Your task to perform on an android device: turn on location history Image 0: 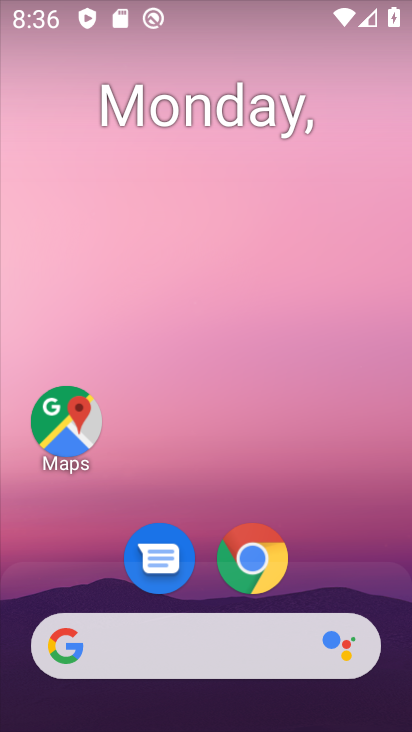
Step 0: click (65, 432)
Your task to perform on an android device: turn on location history Image 1: 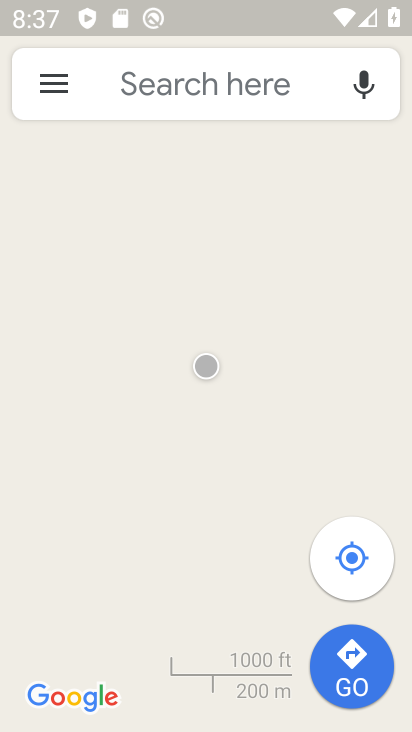
Step 1: click (40, 82)
Your task to perform on an android device: turn on location history Image 2: 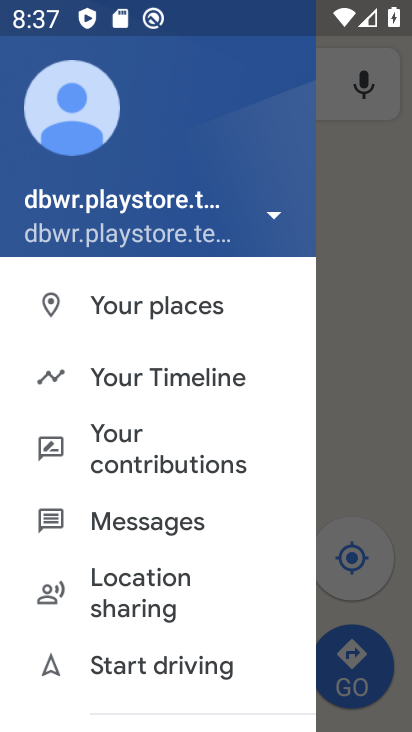
Step 2: click (196, 365)
Your task to perform on an android device: turn on location history Image 3: 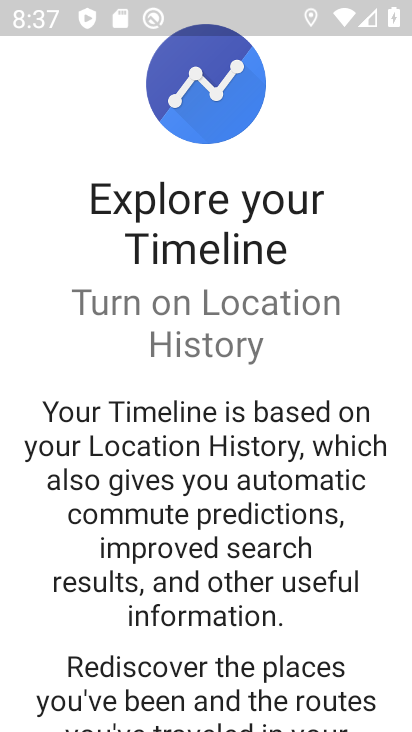
Step 3: drag from (215, 542) to (211, 202)
Your task to perform on an android device: turn on location history Image 4: 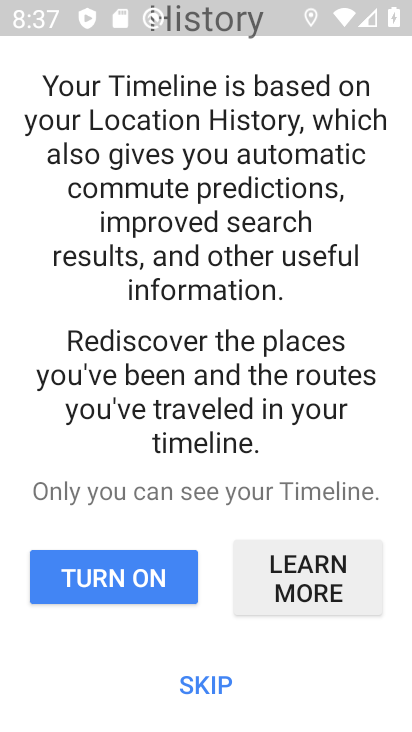
Step 4: click (107, 583)
Your task to perform on an android device: turn on location history Image 5: 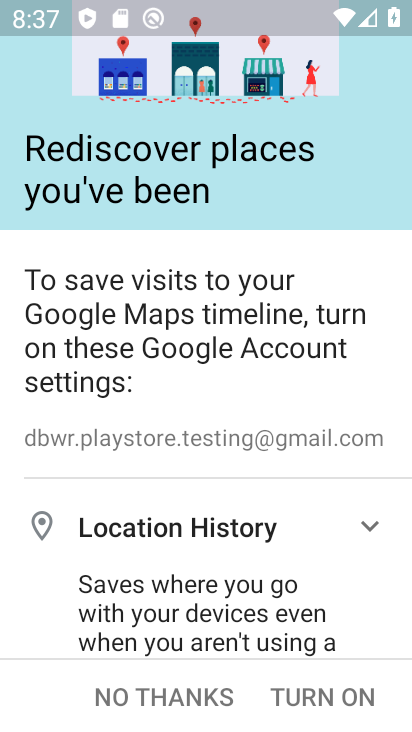
Step 5: click (194, 695)
Your task to perform on an android device: turn on location history Image 6: 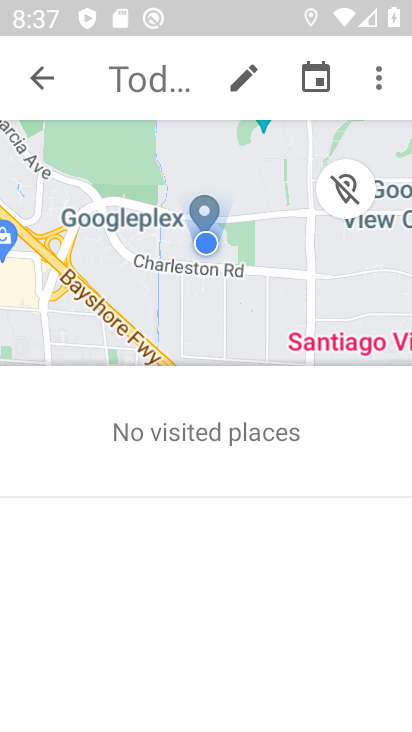
Step 6: click (378, 85)
Your task to perform on an android device: turn on location history Image 7: 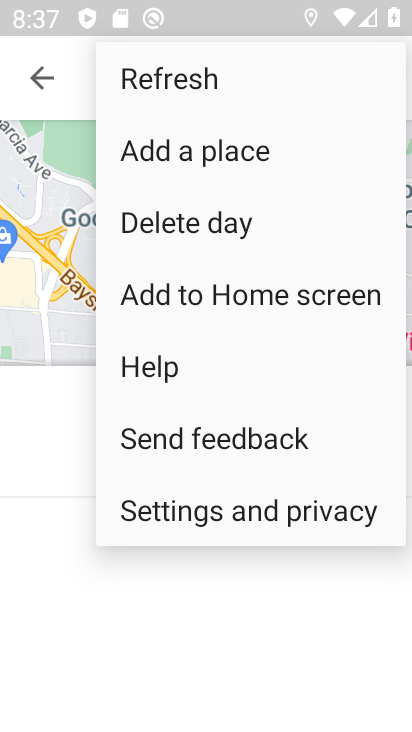
Step 7: click (218, 506)
Your task to perform on an android device: turn on location history Image 8: 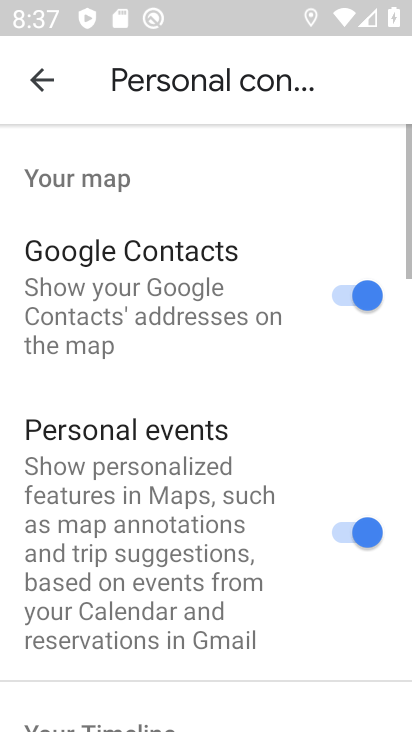
Step 8: drag from (204, 547) to (207, 96)
Your task to perform on an android device: turn on location history Image 9: 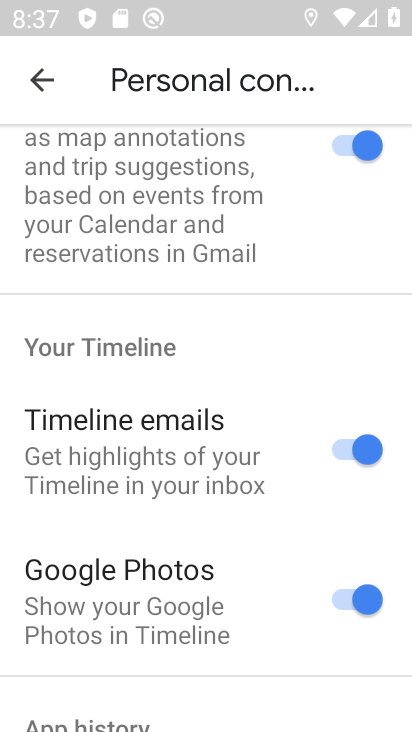
Step 9: drag from (166, 563) to (181, 195)
Your task to perform on an android device: turn on location history Image 10: 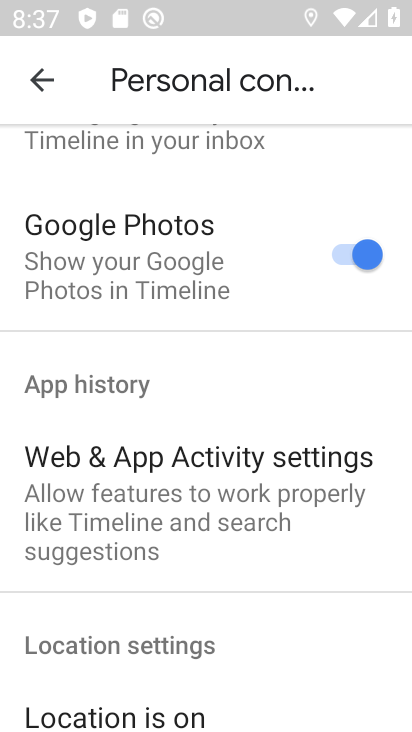
Step 10: drag from (108, 618) to (91, 176)
Your task to perform on an android device: turn on location history Image 11: 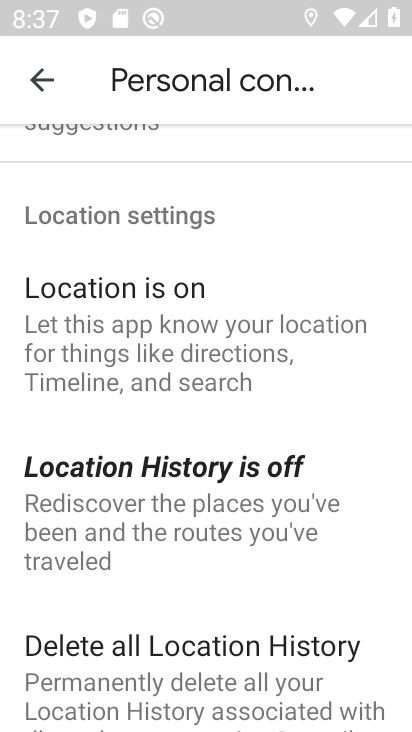
Step 11: click (42, 470)
Your task to perform on an android device: turn on location history Image 12: 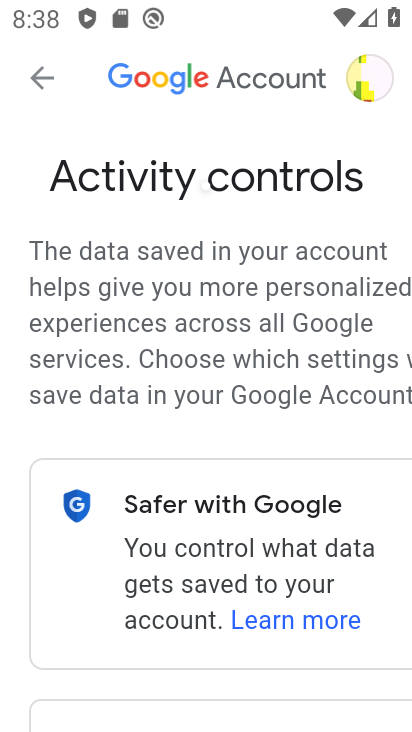
Step 12: drag from (86, 565) to (115, 116)
Your task to perform on an android device: turn on location history Image 13: 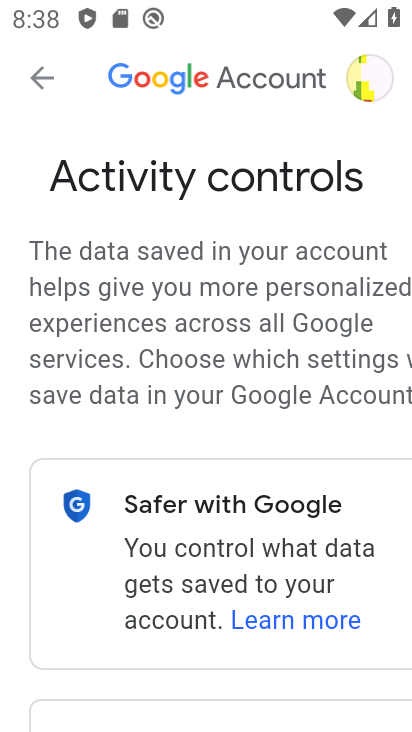
Step 13: drag from (198, 608) to (216, 259)
Your task to perform on an android device: turn on location history Image 14: 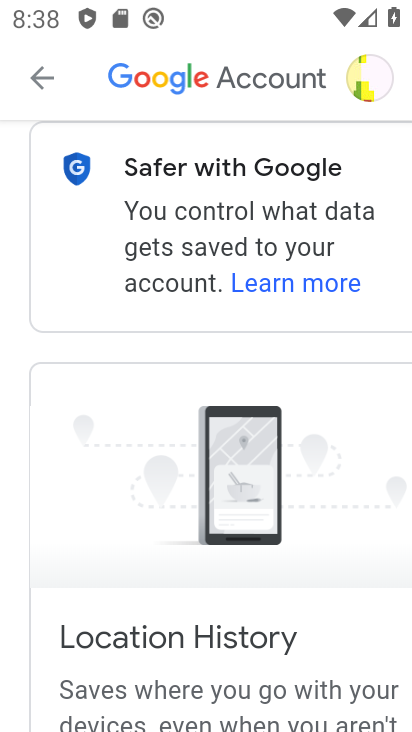
Step 14: drag from (169, 542) to (151, 236)
Your task to perform on an android device: turn on location history Image 15: 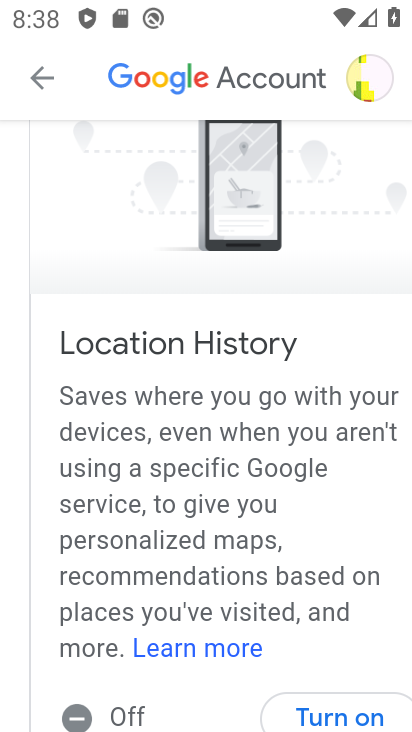
Step 15: drag from (120, 596) to (131, 251)
Your task to perform on an android device: turn on location history Image 16: 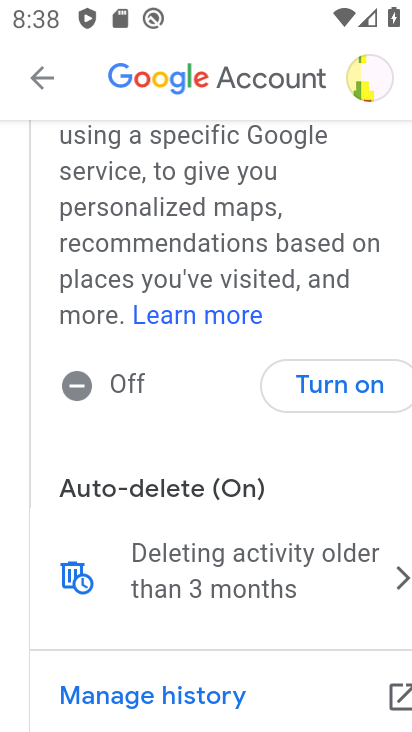
Step 16: click (298, 395)
Your task to perform on an android device: turn on location history Image 17: 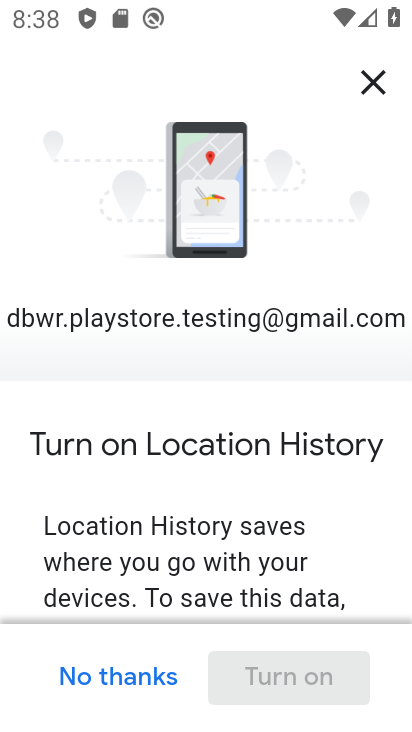
Step 17: drag from (250, 524) to (250, 218)
Your task to perform on an android device: turn on location history Image 18: 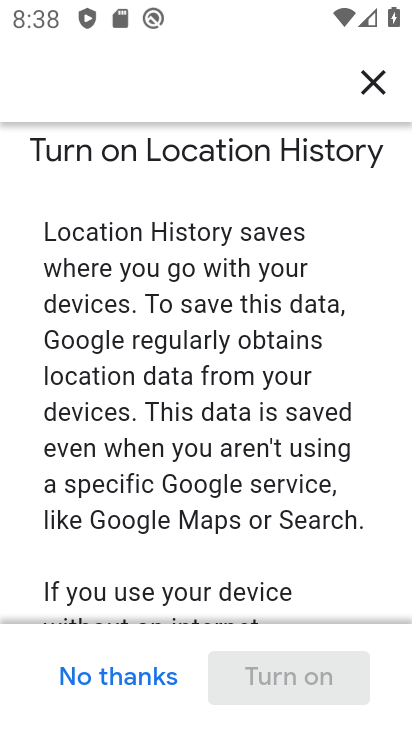
Step 18: drag from (176, 569) to (186, 259)
Your task to perform on an android device: turn on location history Image 19: 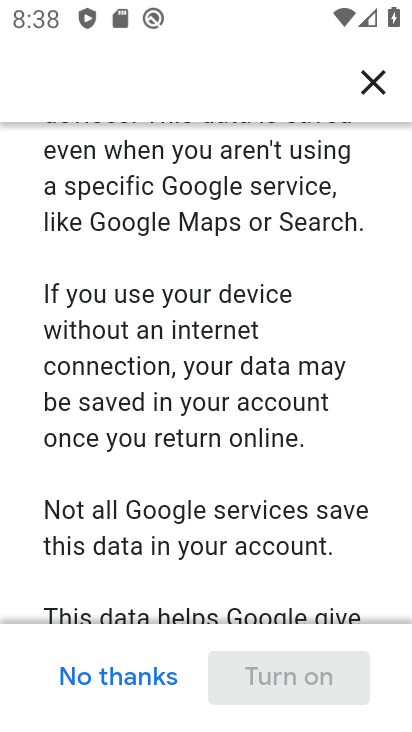
Step 19: drag from (181, 531) to (179, 235)
Your task to perform on an android device: turn on location history Image 20: 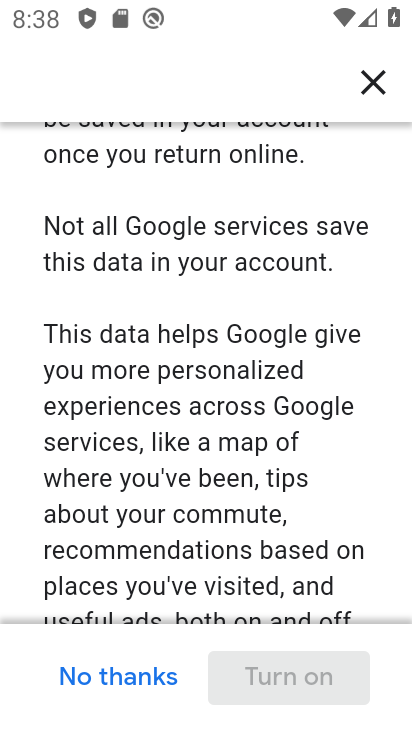
Step 20: drag from (88, 518) to (97, 232)
Your task to perform on an android device: turn on location history Image 21: 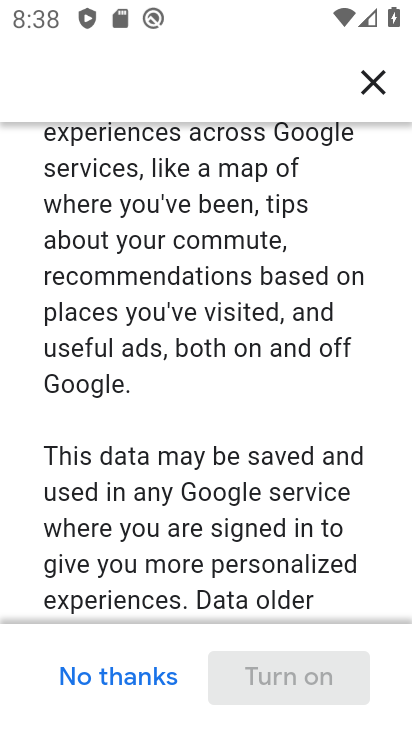
Step 21: drag from (113, 533) to (130, 352)
Your task to perform on an android device: turn on location history Image 22: 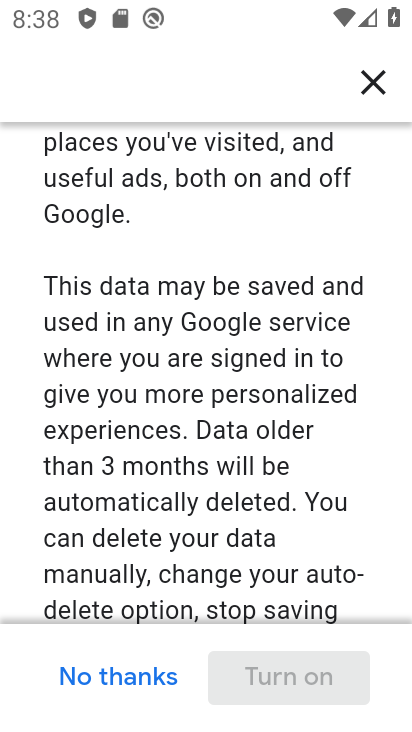
Step 22: drag from (111, 553) to (132, 322)
Your task to perform on an android device: turn on location history Image 23: 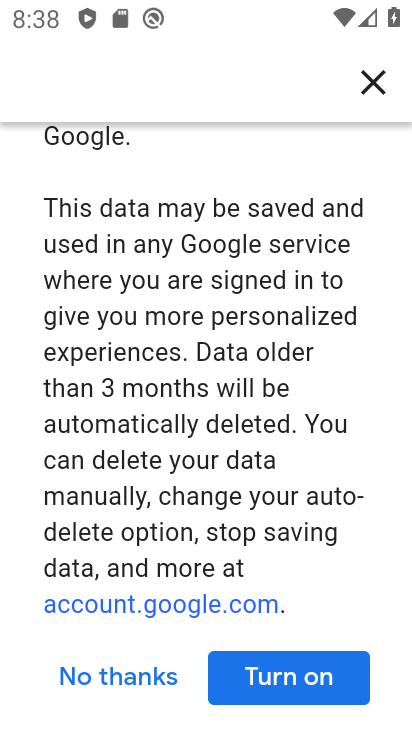
Step 23: click (295, 687)
Your task to perform on an android device: turn on location history Image 24: 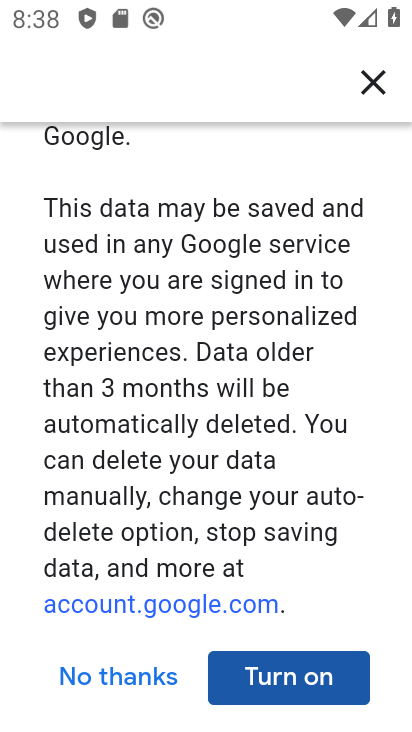
Step 24: click (295, 687)
Your task to perform on an android device: turn on location history Image 25: 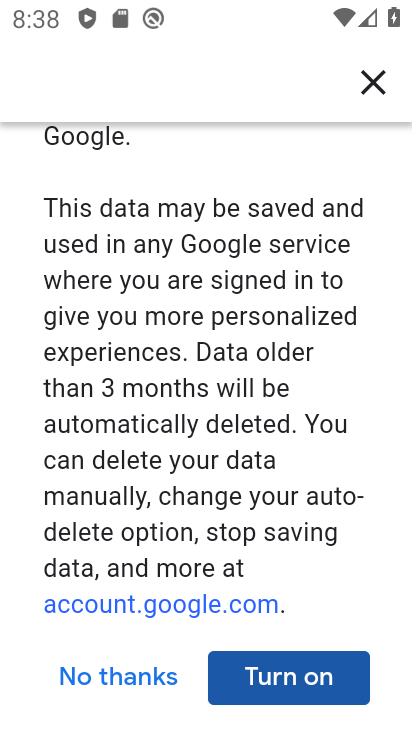
Step 25: click (295, 687)
Your task to perform on an android device: turn on location history Image 26: 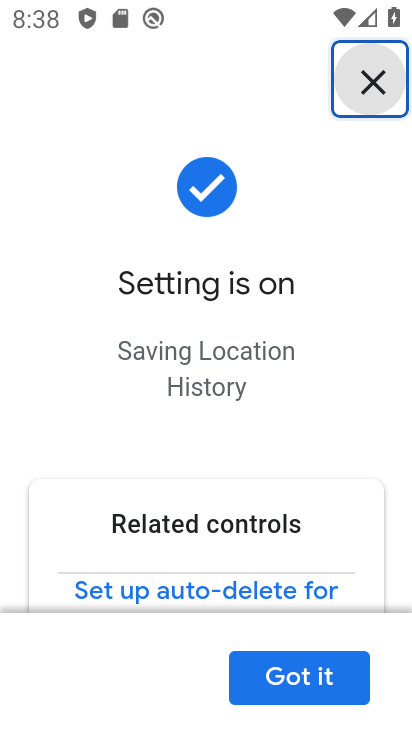
Step 26: click (331, 676)
Your task to perform on an android device: turn on location history Image 27: 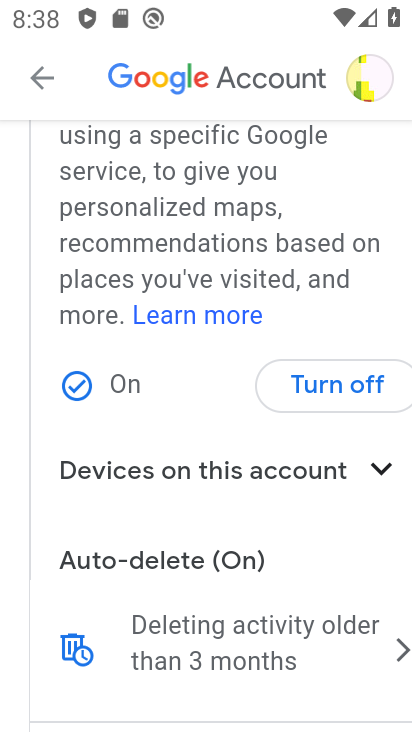
Step 27: click (331, 676)
Your task to perform on an android device: turn on location history Image 28: 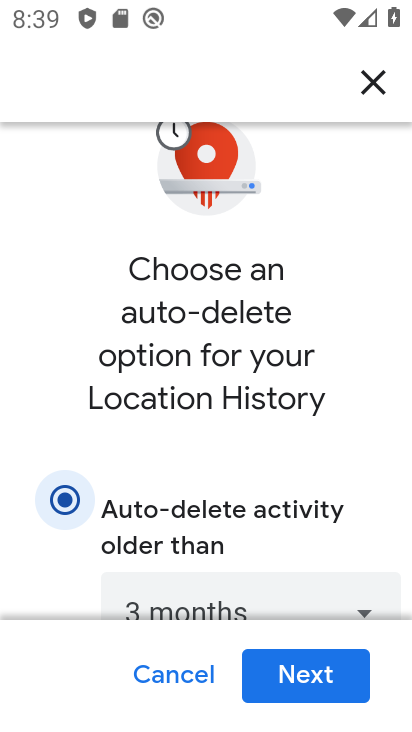
Step 28: click (191, 675)
Your task to perform on an android device: turn on location history Image 29: 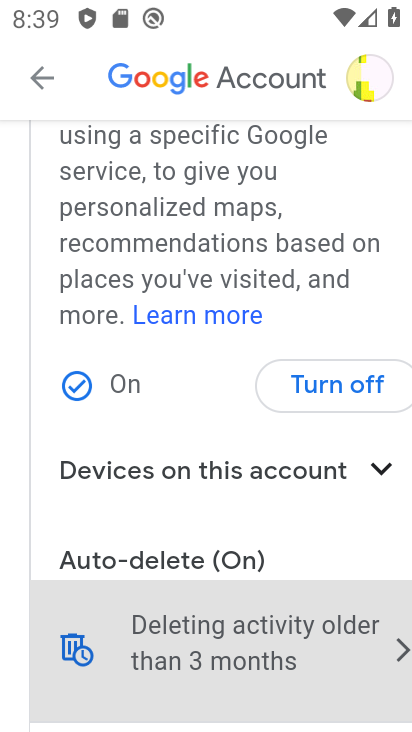
Step 29: task complete